Your task to perform on an android device: Search for bose soundlink on newegg, select the first entry, and add it to the cart. Image 0: 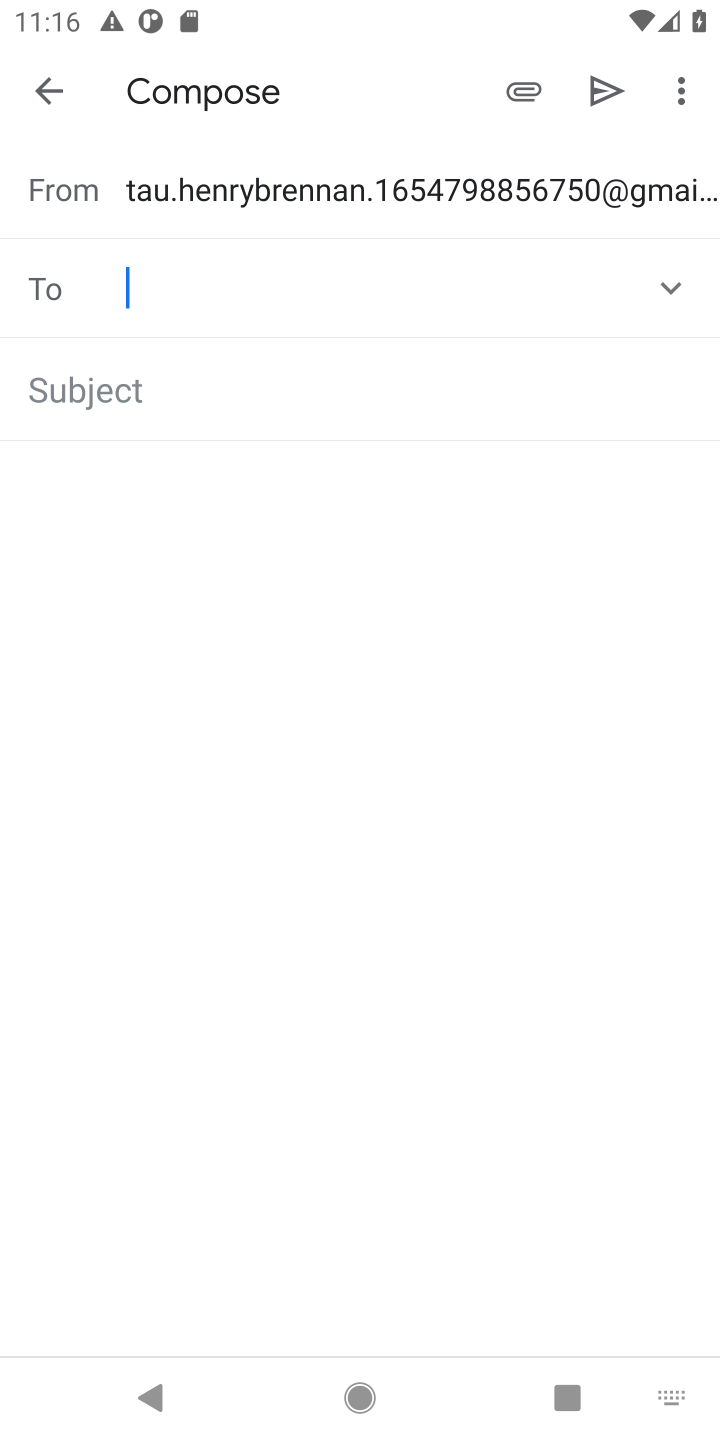
Step 0: press home button
Your task to perform on an android device: Search for bose soundlink on newegg, select the first entry, and add it to the cart. Image 1: 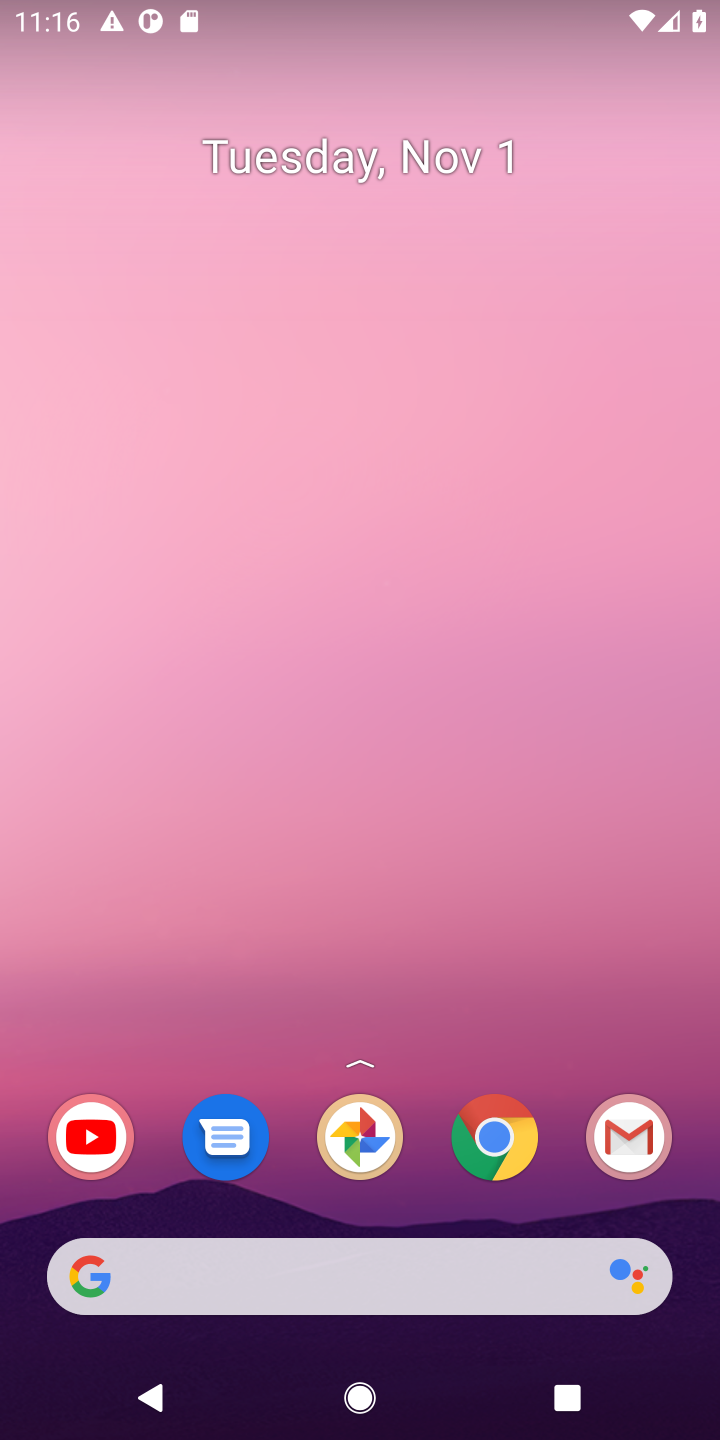
Step 1: click (365, 1264)
Your task to perform on an android device: Search for bose soundlink on newegg, select the first entry, and add it to the cart. Image 2: 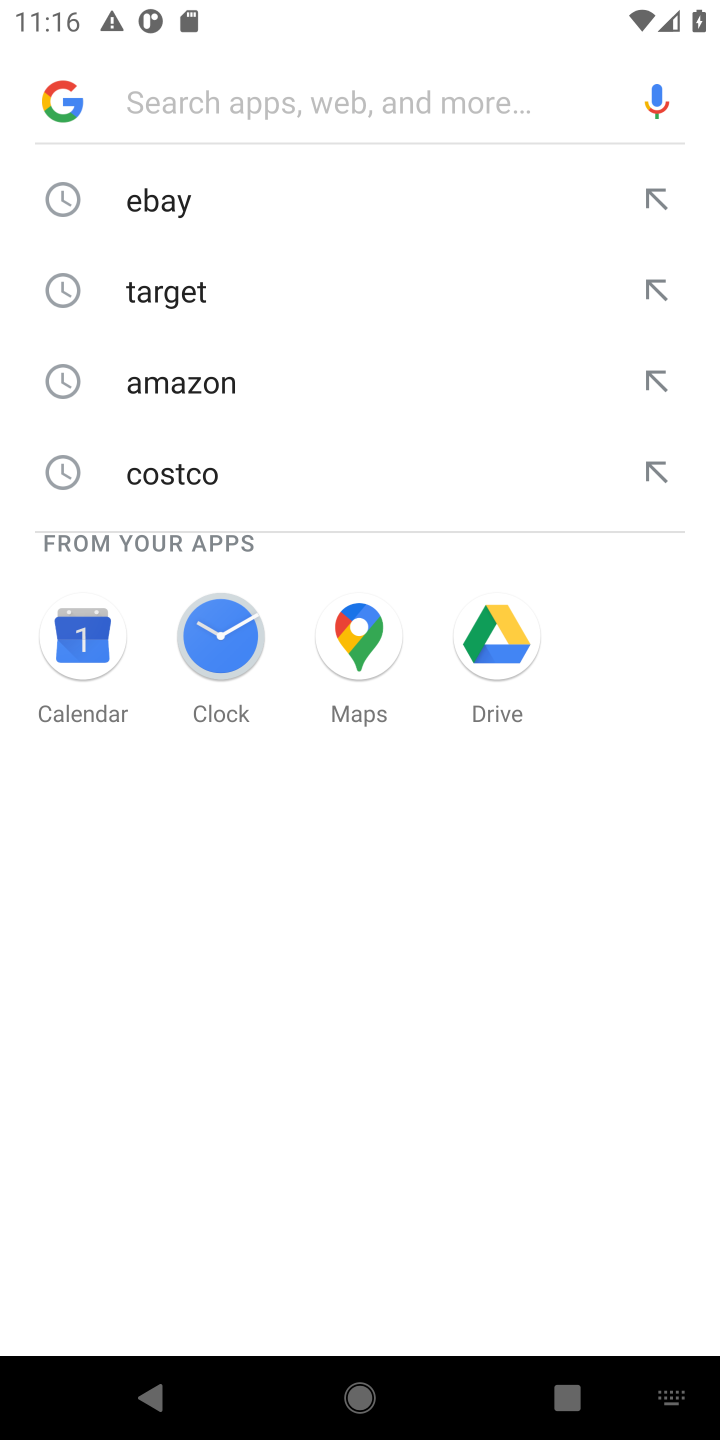
Step 2: type "newegg"
Your task to perform on an android device: Search for bose soundlink on newegg, select the first entry, and add it to the cart. Image 3: 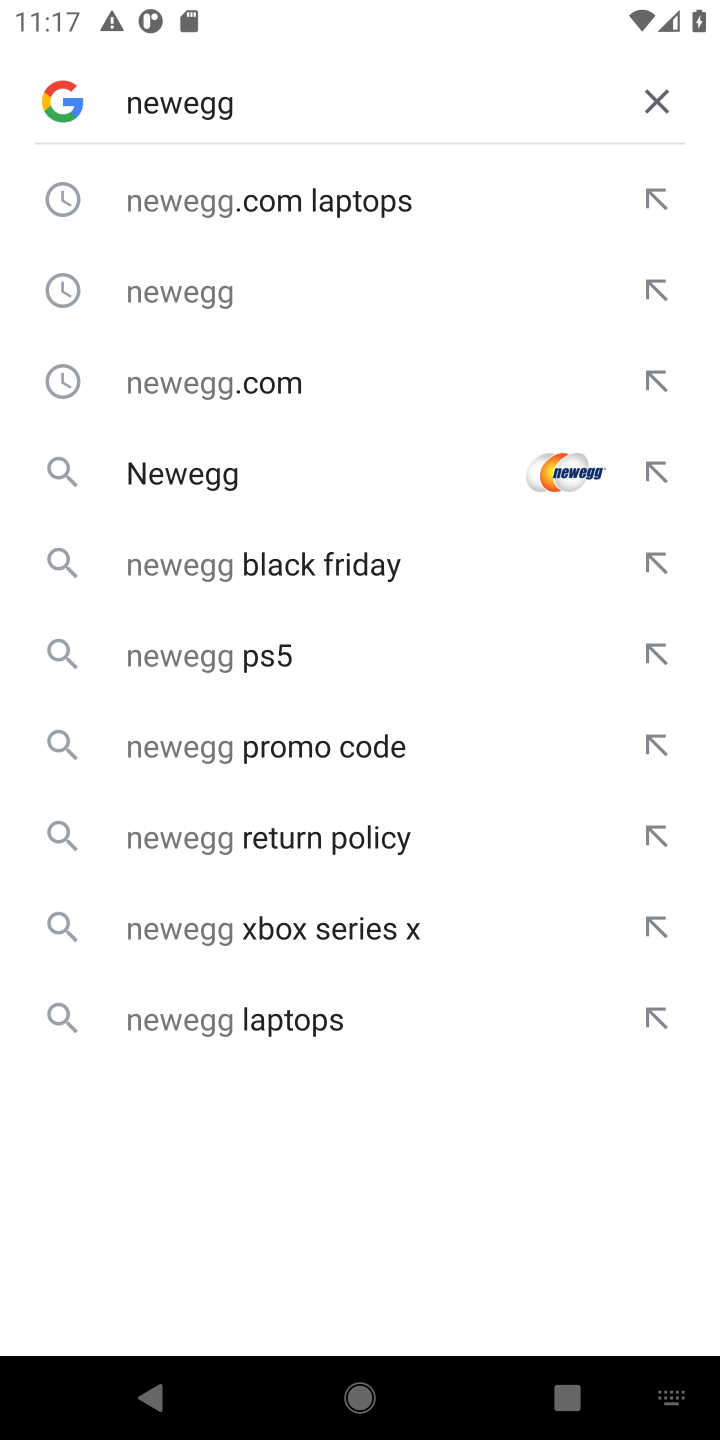
Step 3: click (370, 484)
Your task to perform on an android device: Search for bose soundlink on newegg, select the first entry, and add it to the cart. Image 4: 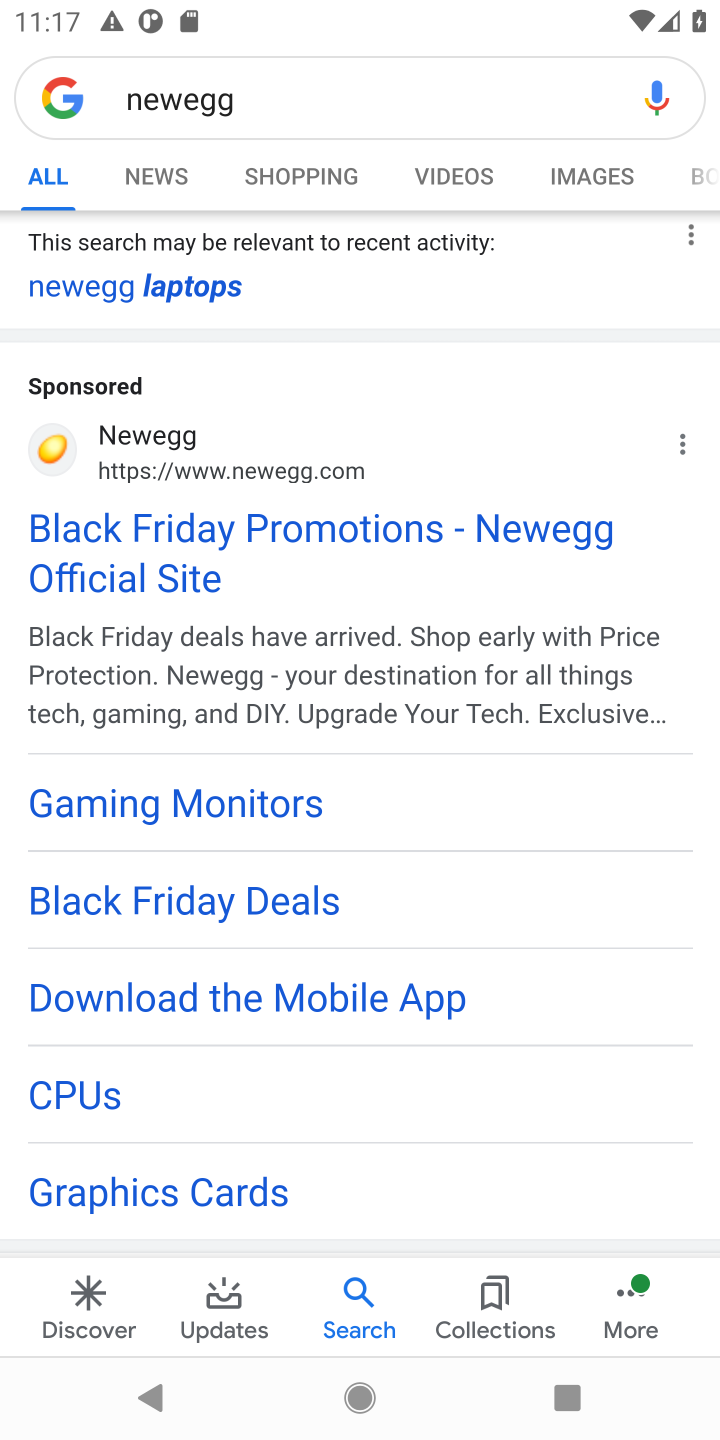
Step 4: click (112, 431)
Your task to perform on an android device: Search for bose soundlink on newegg, select the first entry, and add it to the cart. Image 5: 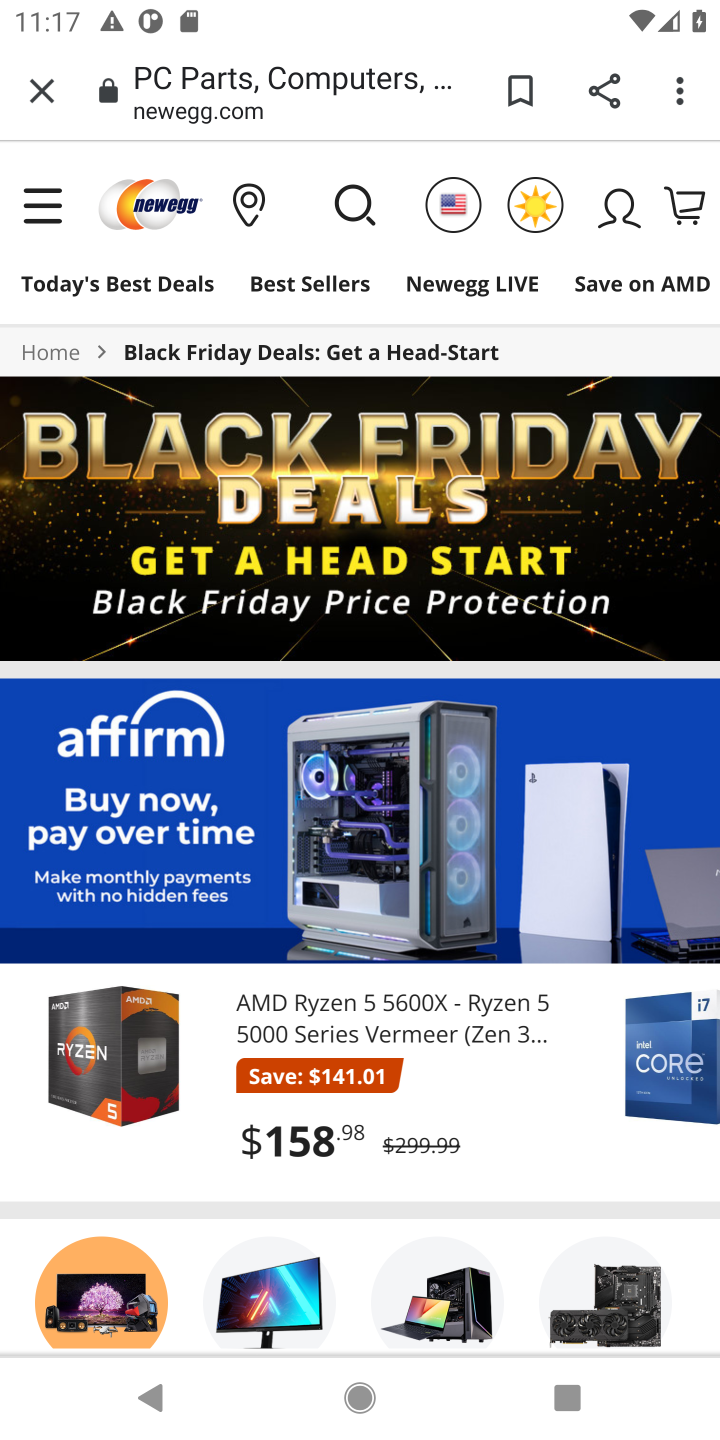
Step 5: click (338, 218)
Your task to perform on an android device: Search for bose soundlink on newegg, select the first entry, and add it to the cart. Image 6: 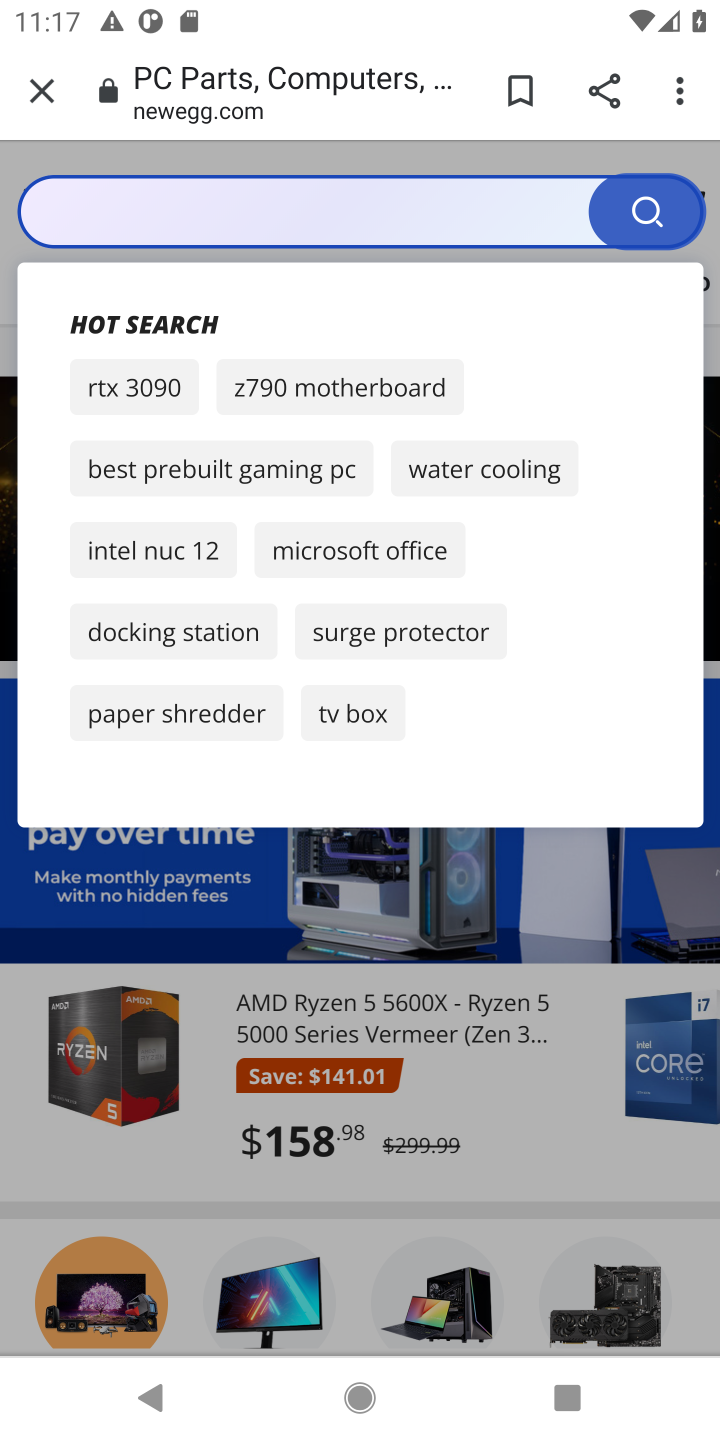
Step 6: click (338, 218)
Your task to perform on an android device: Search for bose soundlink on newegg, select the first entry, and add it to the cart. Image 7: 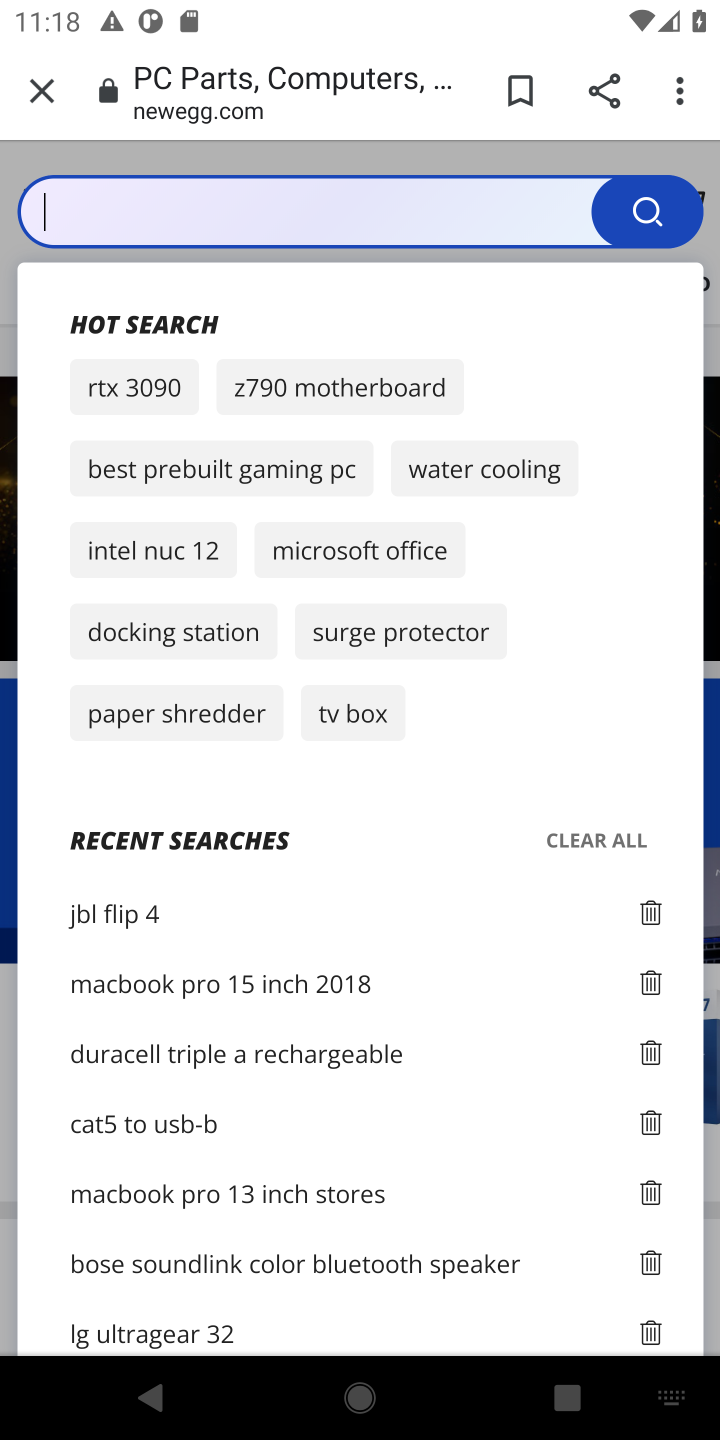
Step 7: type "bose soundlink "
Your task to perform on an android device: Search for bose soundlink on newegg, select the first entry, and add it to the cart. Image 8: 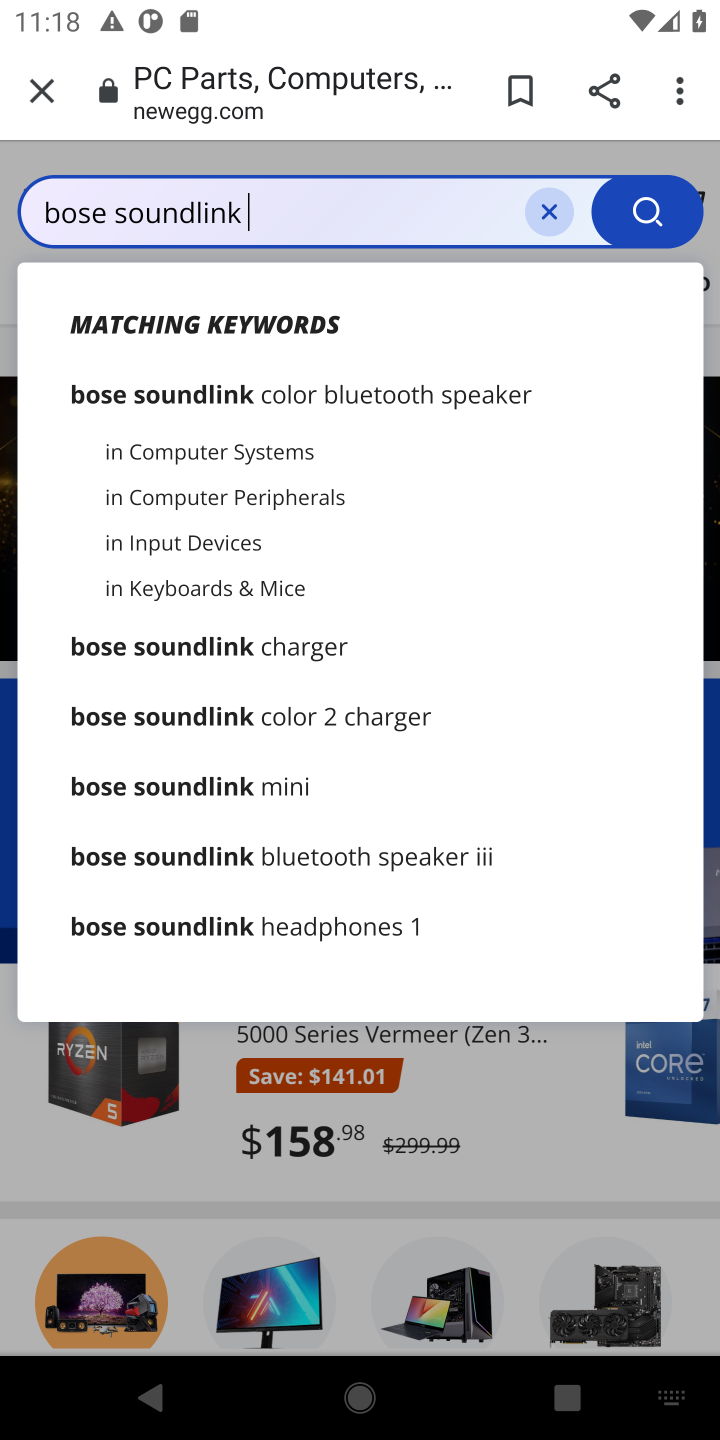
Step 8: click (271, 450)
Your task to perform on an android device: Search for bose soundlink on newegg, select the first entry, and add it to the cart. Image 9: 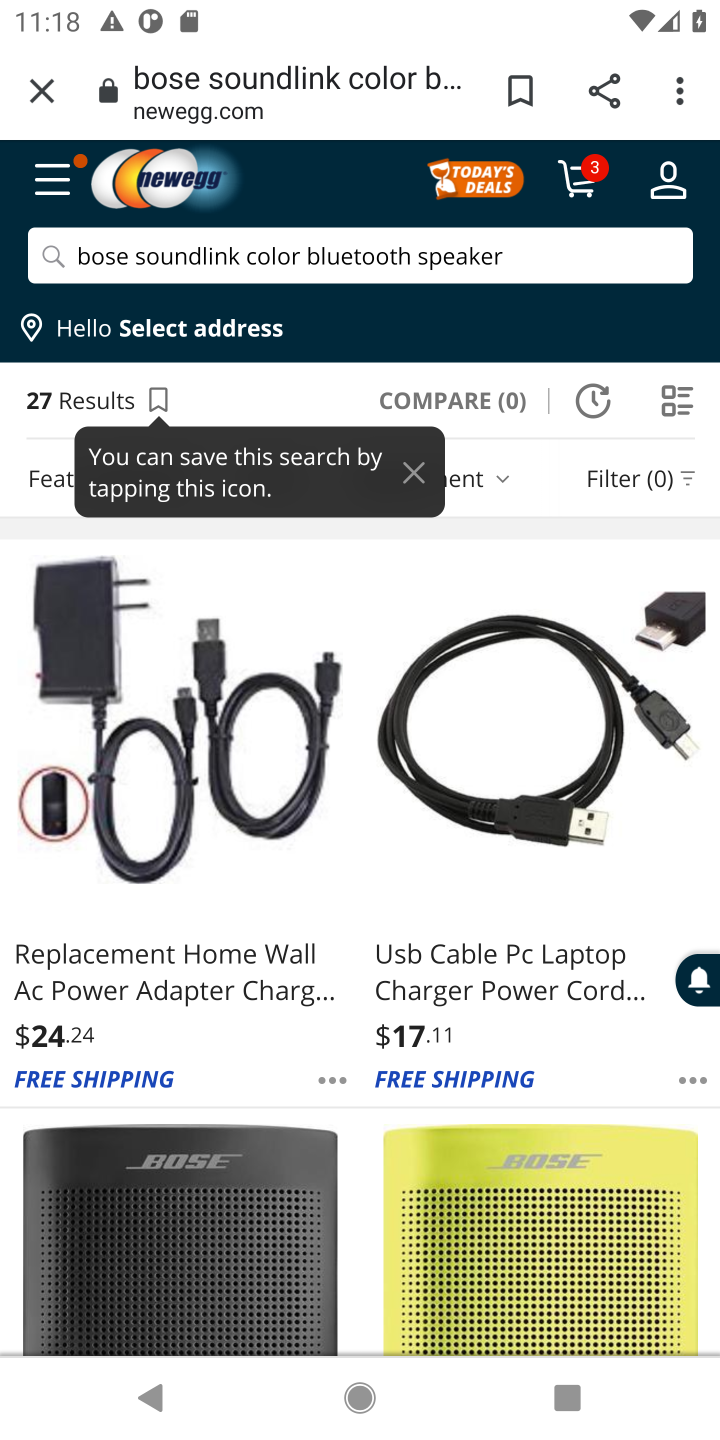
Step 9: click (168, 1235)
Your task to perform on an android device: Search for bose soundlink on newegg, select the first entry, and add it to the cart. Image 10: 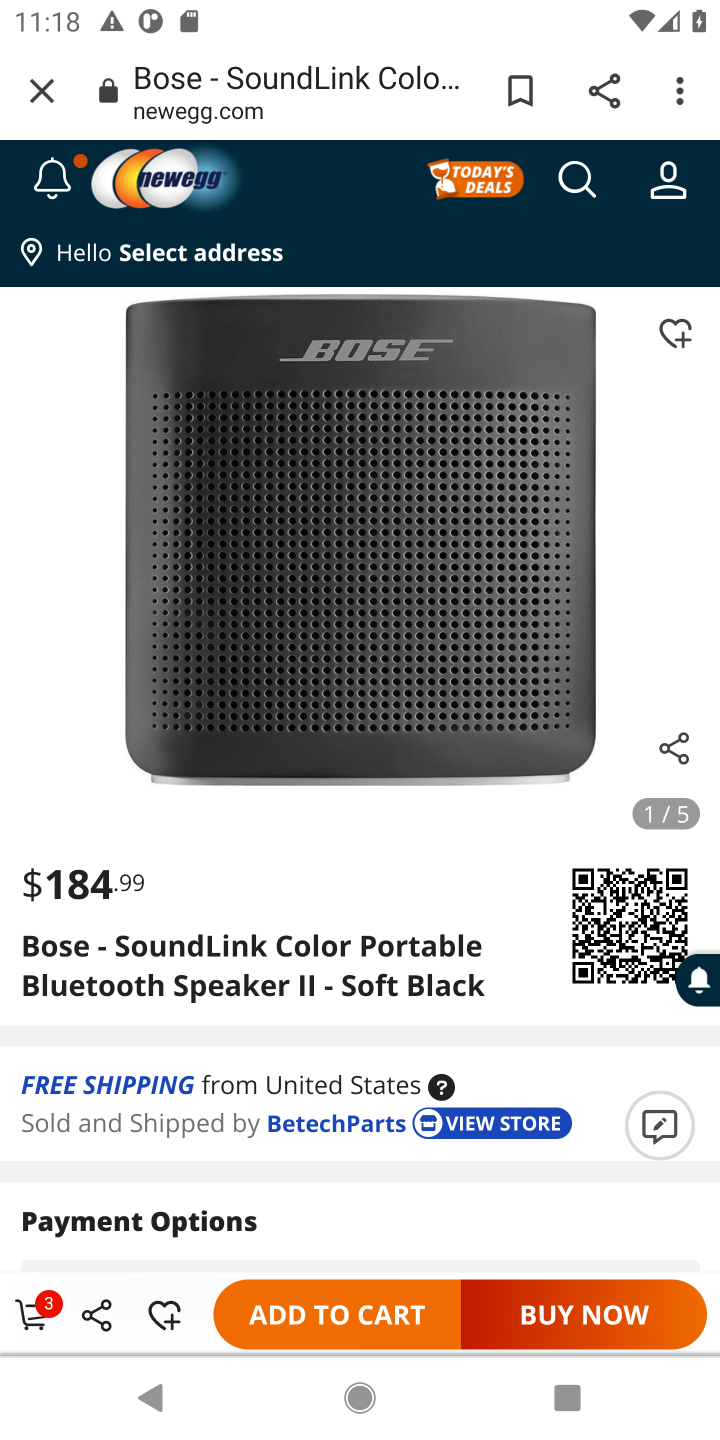
Step 10: click (325, 1306)
Your task to perform on an android device: Search for bose soundlink on newegg, select the first entry, and add it to the cart. Image 11: 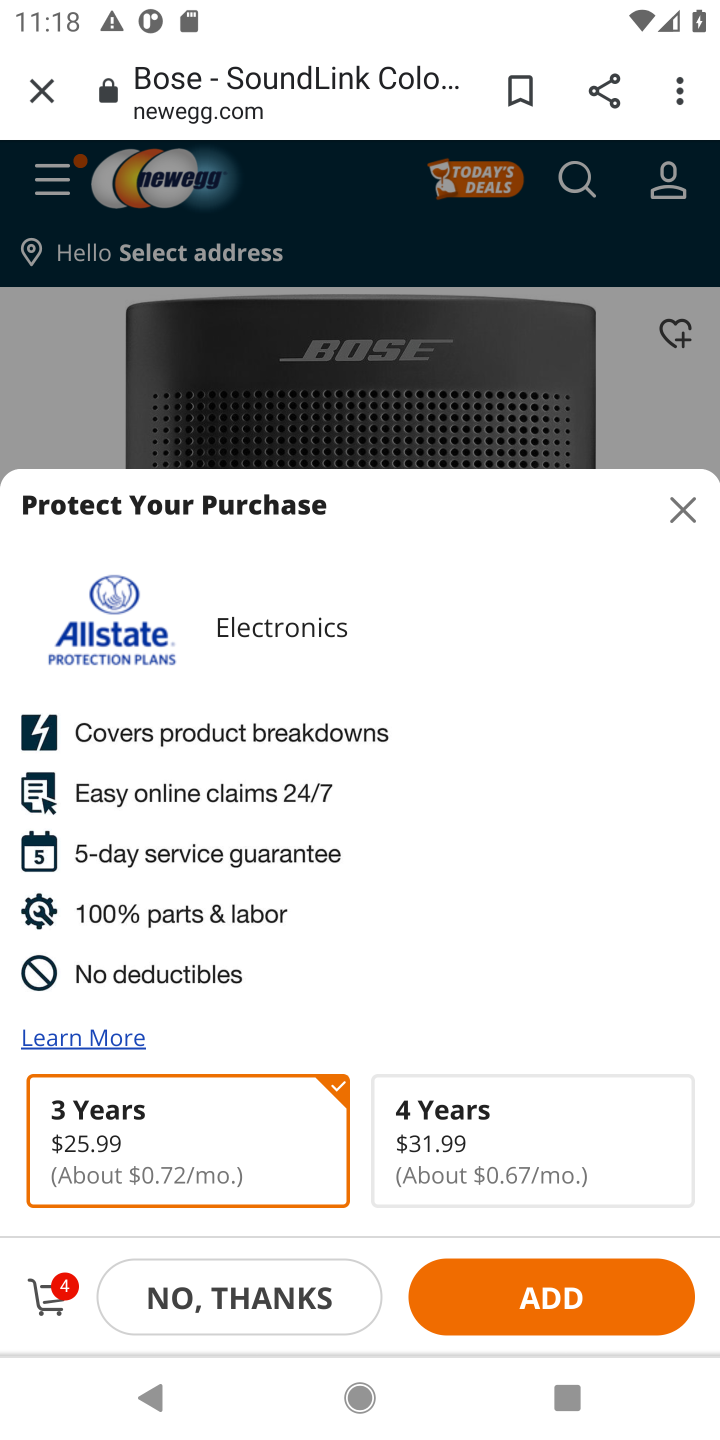
Step 11: task complete